Your task to perform on an android device: Toggle the flashlight Image 0: 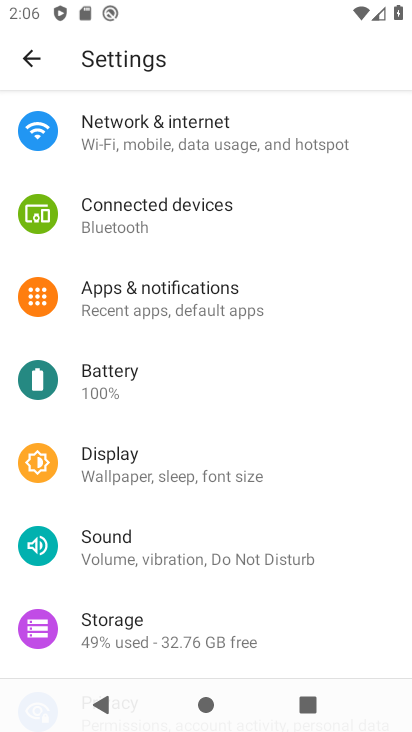
Step 0: drag from (280, 58) to (238, 628)
Your task to perform on an android device: Toggle the flashlight Image 1: 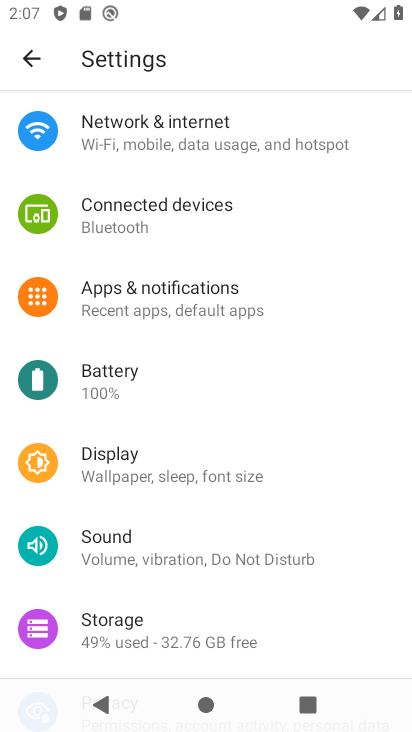
Step 1: task complete